Your task to perform on an android device: Go to Reddit.com Image 0: 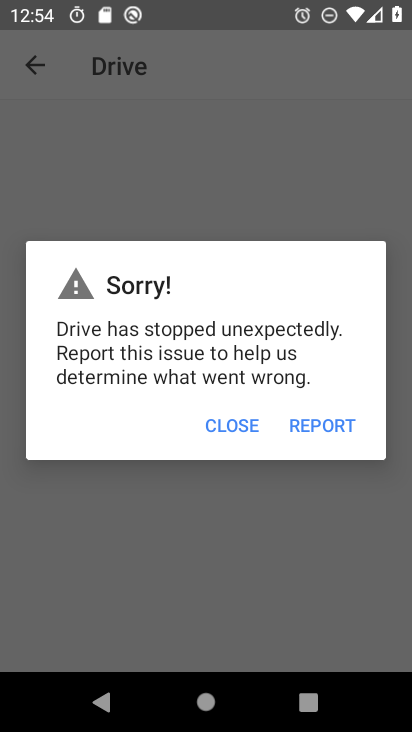
Step 0: press home button
Your task to perform on an android device: Go to Reddit.com Image 1: 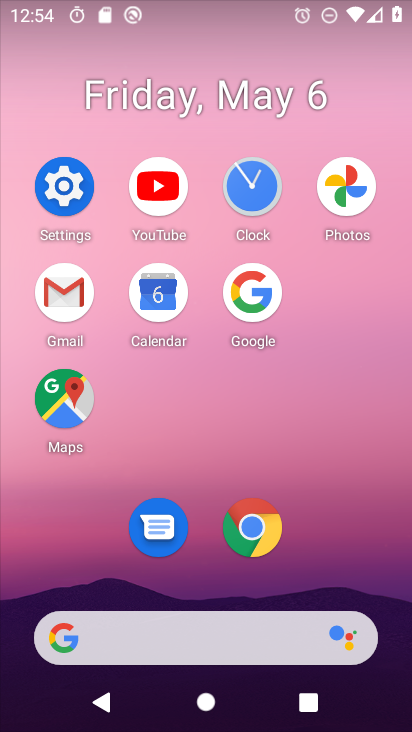
Step 1: click (257, 534)
Your task to perform on an android device: Go to Reddit.com Image 2: 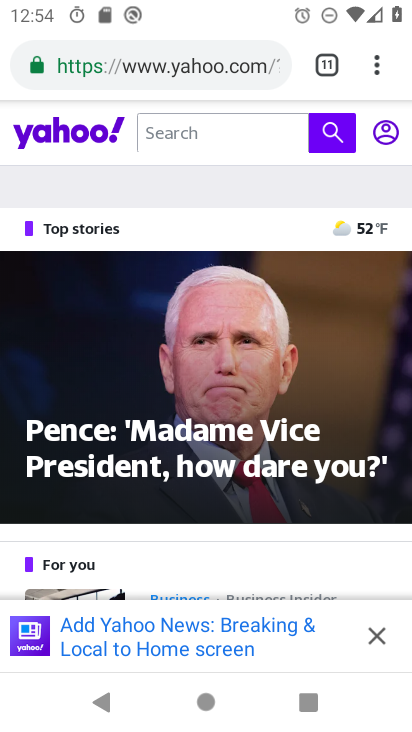
Step 2: click (323, 66)
Your task to perform on an android device: Go to Reddit.com Image 3: 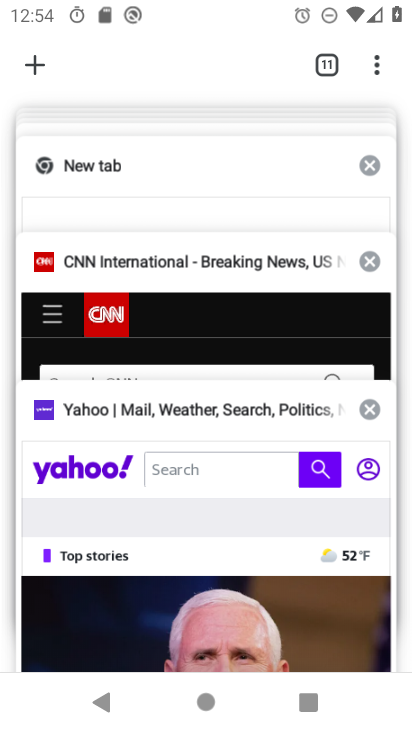
Step 3: click (44, 70)
Your task to perform on an android device: Go to Reddit.com Image 4: 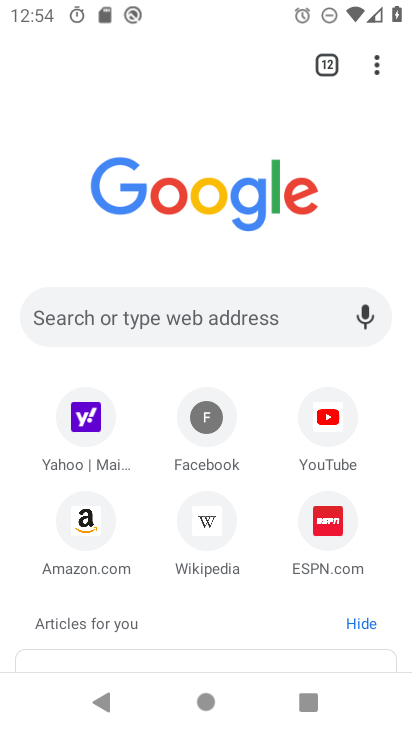
Step 4: click (250, 315)
Your task to perform on an android device: Go to Reddit.com Image 5: 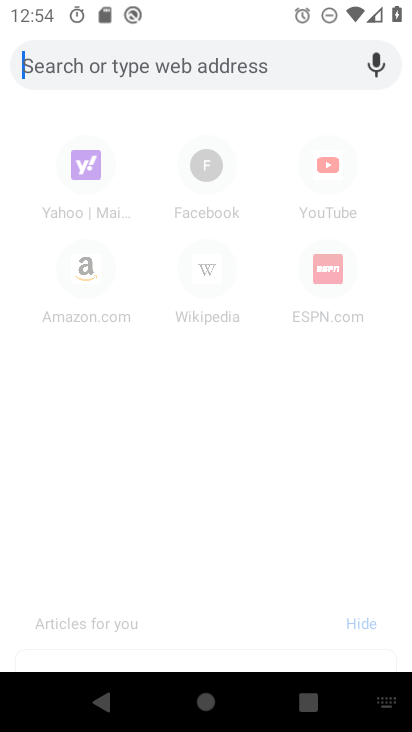
Step 5: type "reddit"
Your task to perform on an android device: Go to Reddit.com Image 6: 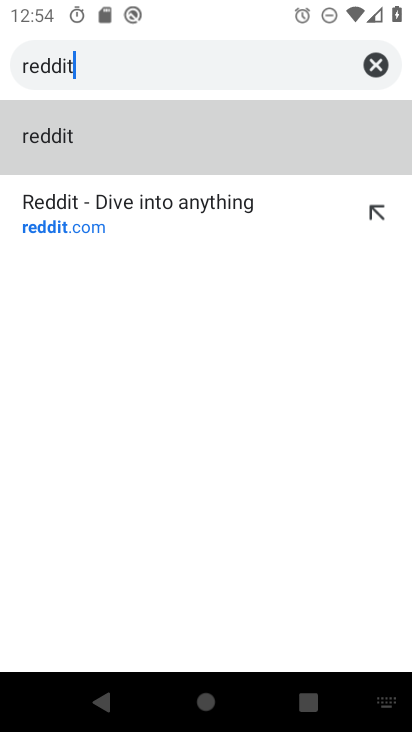
Step 6: click (109, 232)
Your task to perform on an android device: Go to Reddit.com Image 7: 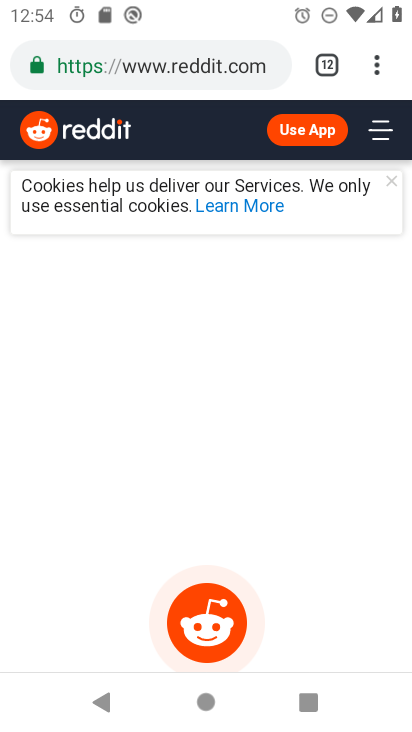
Step 7: task complete